Your task to perform on an android device: Open wifi settings Image 0: 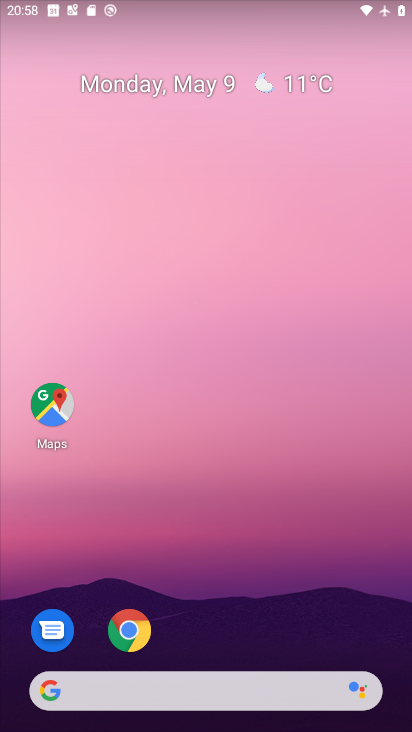
Step 0: drag from (258, 549) to (301, 116)
Your task to perform on an android device: Open wifi settings Image 1: 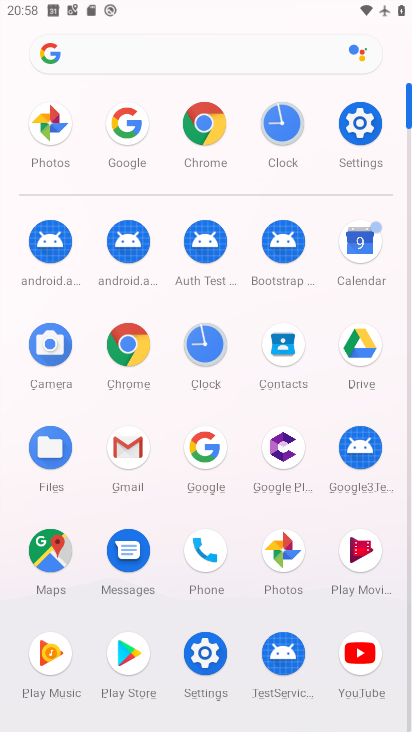
Step 1: click (370, 134)
Your task to perform on an android device: Open wifi settings Image 2: 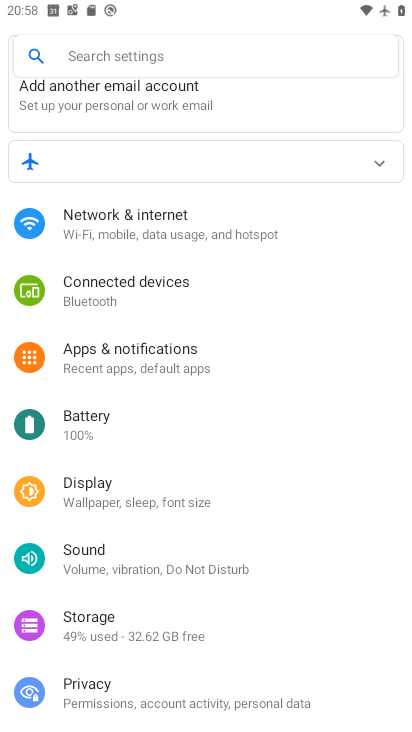
Step 2: click (135, 212)
Your task to perform on an android device: Open wifi settings Image 3: 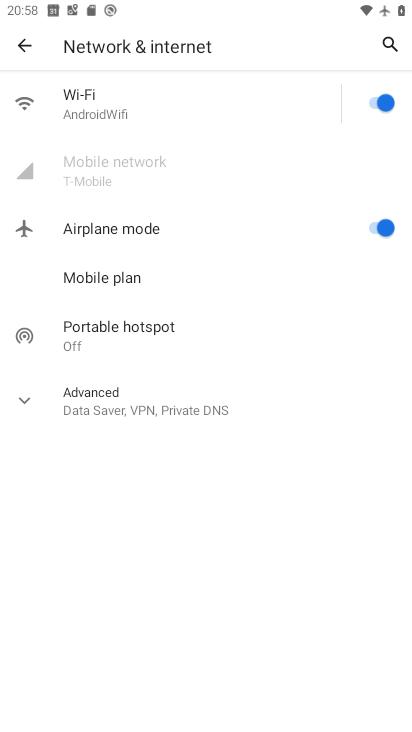
Step 3: click (172, 106)
Your task to perform on an android device: Open wifi settings Image 4: 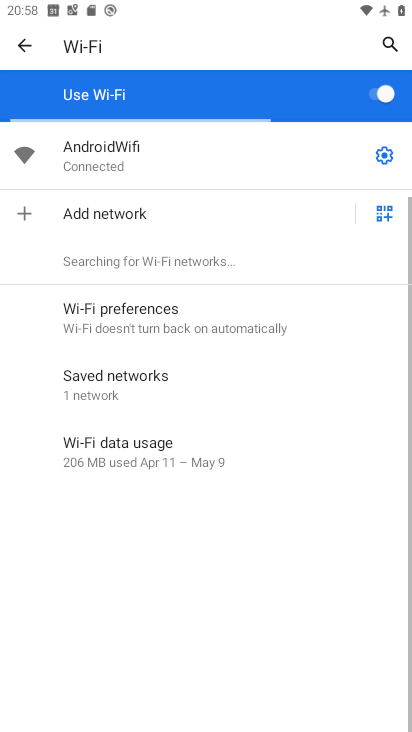
Step 4: task complete